Your task to perform on an android device: Do I have any events tomorrow? Image 0: 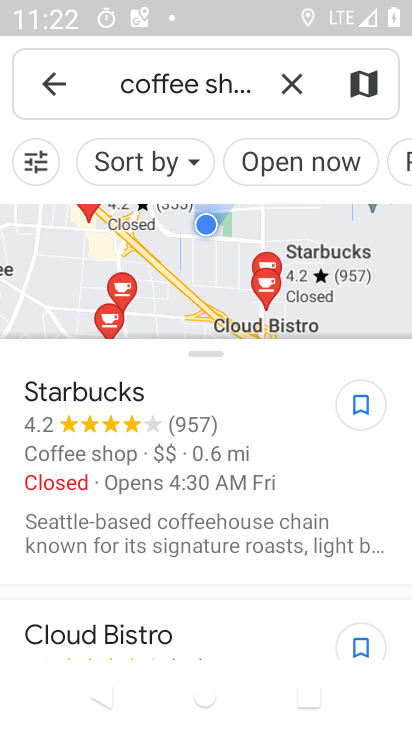
Step 0: press back button
Your task to perform on an android device: Do I have any events tomorrow? Image 1: 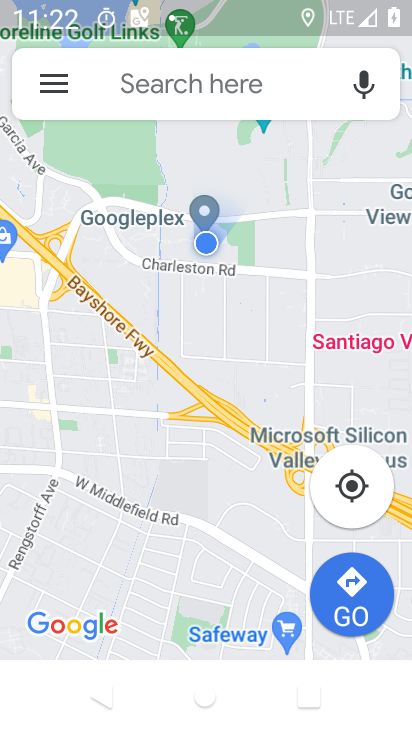
Step 1: press back button
Your task to perform on an android device: Do I have any events tomorrow? Image 2: 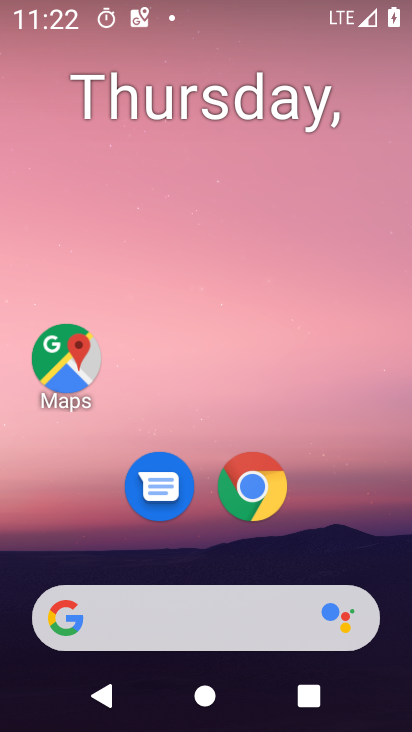
Step 2: drag from (181, 547) to (250, 0)
Your task to perform on an android device: Do I have any events tomorrow? Image 3: 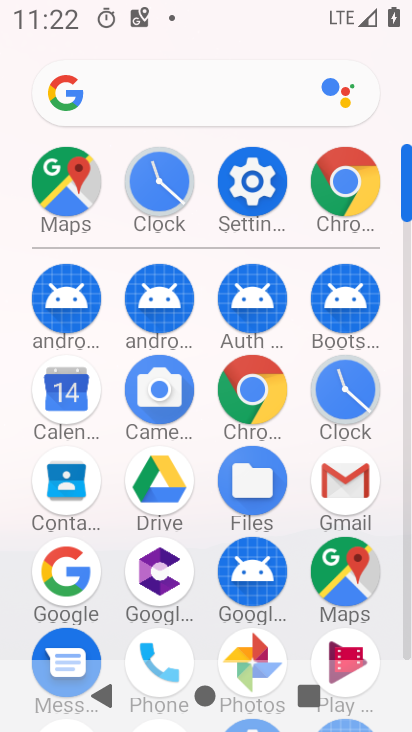
Step 3: click (74, 398)
Your task to perform on an android device: Do I have any events tomorrow? Image 4: 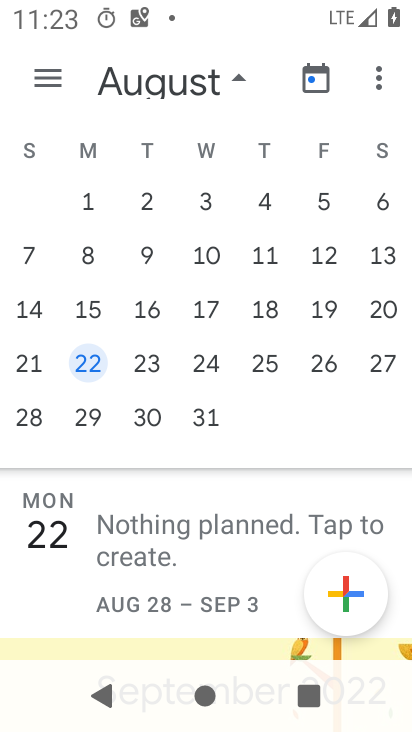
Step 4: drag from (36, 326) to (398, 293)
Your task to perform on an android device: Do I have any events tomorrow? Image 5: 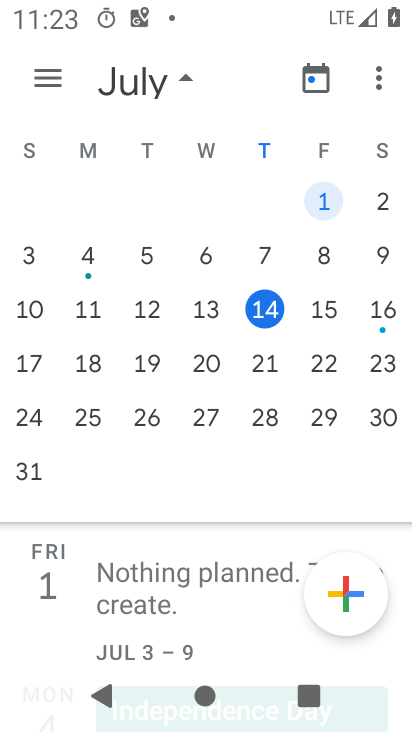
Step 5: click (266, 310)
Your task to perform on an android device: Do I have any events tomorrow? Image 6: 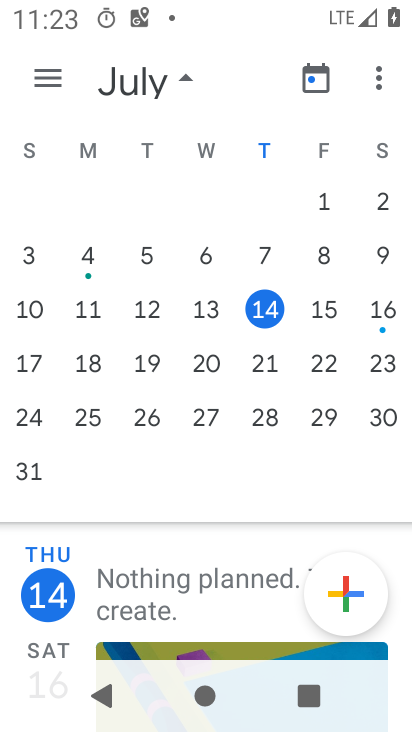
Step 6: task complete